Your task to perform on an android device: Search for sushi restaurants on Maps Image 0: 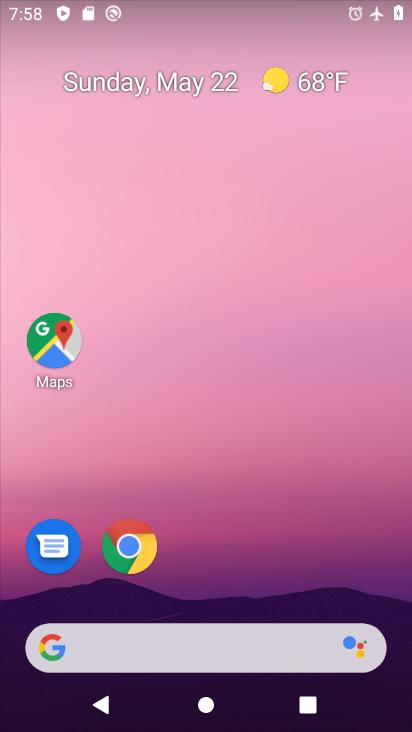
Step 0: drag from (254, 681) to (195, 16)
Your task to perform on an android device: Search for sushi restaurants on Maps Image 1: 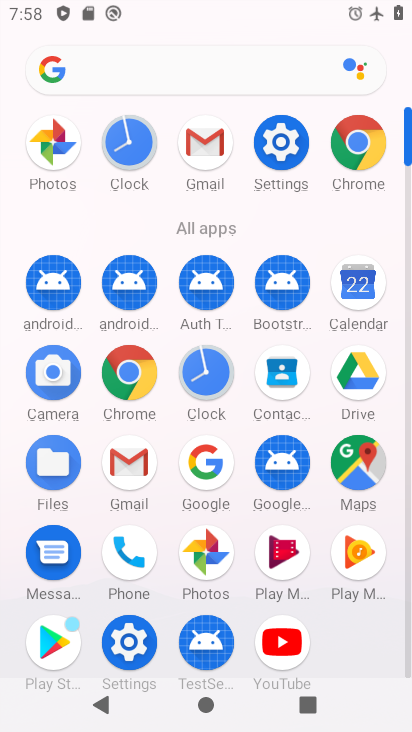
Step 1: drag from (331, 449) to (344, 480)
Your task to perform on an android device: Search for sushi restaurants on Maps Image 2: 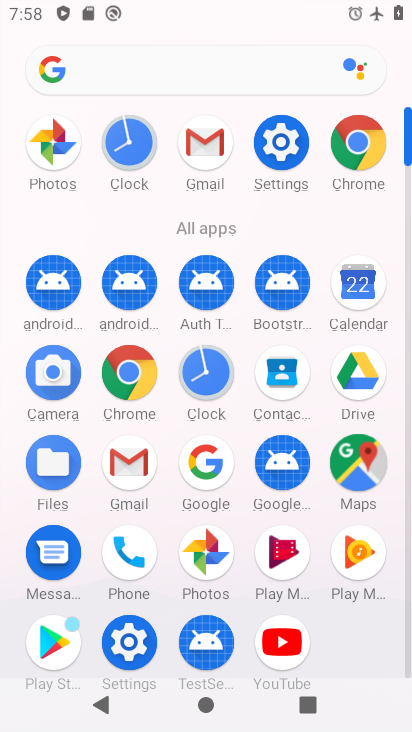
Step 2: click (345, 480)
Your task to perform on an android device: Search for sushi restaurants on Maps Image 3: 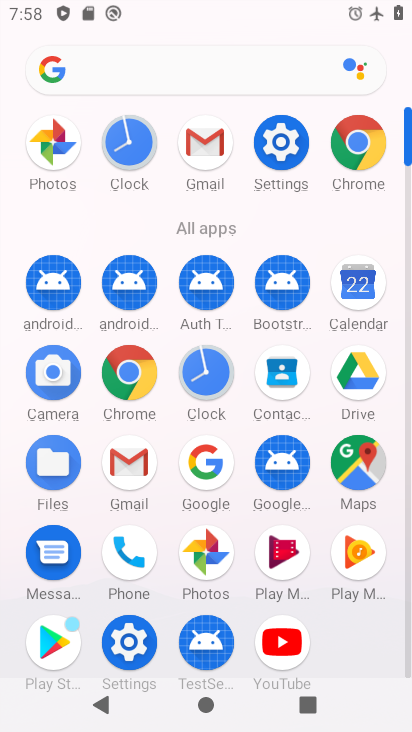
Step 3: click (361, 465)
Your task to perform on an android device: Search for sushi restaurants on Maps Image 4: 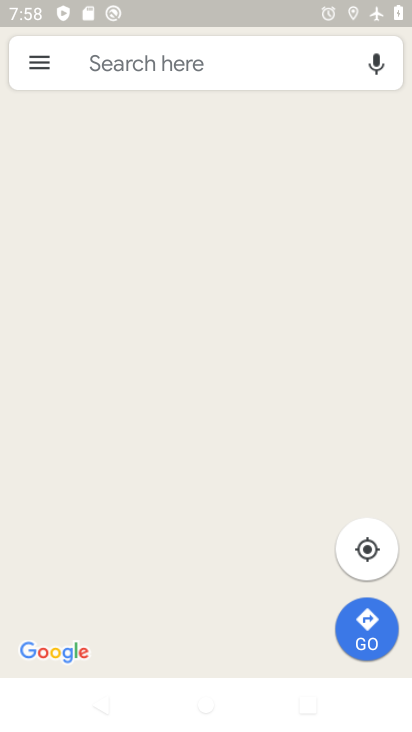
Step 4: click (91, 63)
Your task to perform on an android device: Search for sushi restaurants on Maps Image 5: 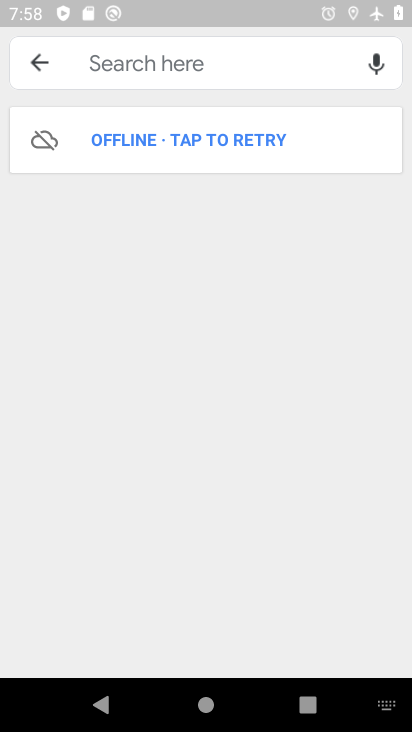
Step 5: type "sushi restaurants"
Your task to perform on an android device: Search for sushi restaurants on Maps Image 6: 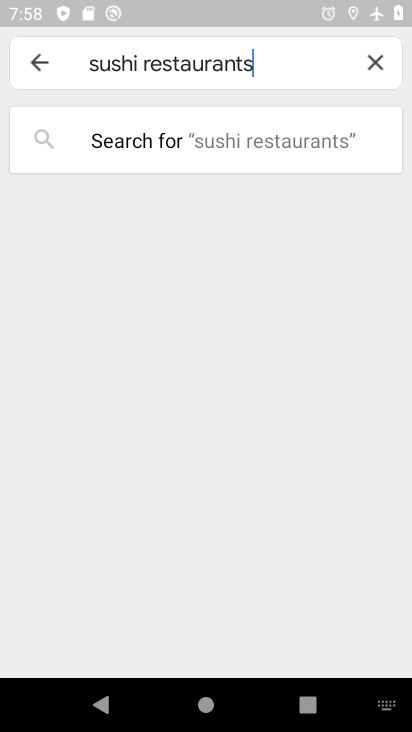
Step 6: click (254, 152)
Your task to perform on an android device: Search for sushi restaurants on Maps Image 7: 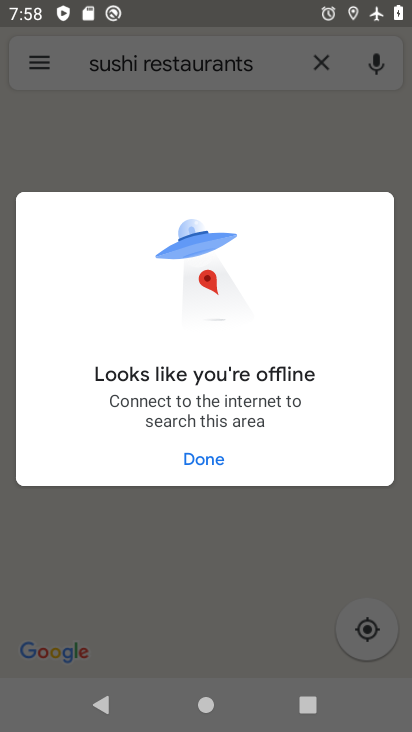
Step 7: task complete